Your task to perform on an android device: Toggle the flashlight Image 0: 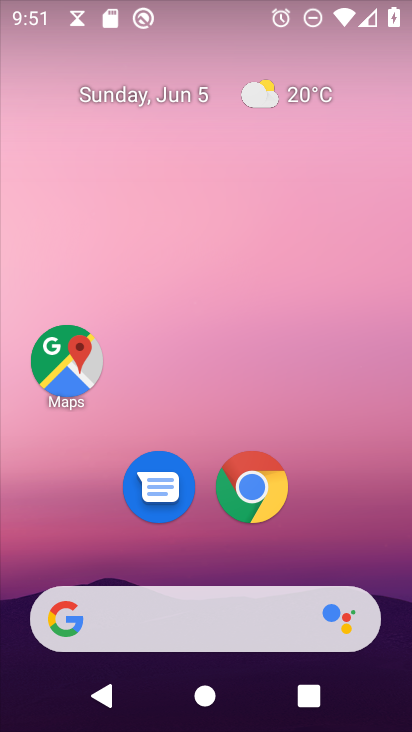
Step 0: drag from (343, 548) to (298, 172)
Your task to perform on an android device: Toggle the flashlight Image 1: 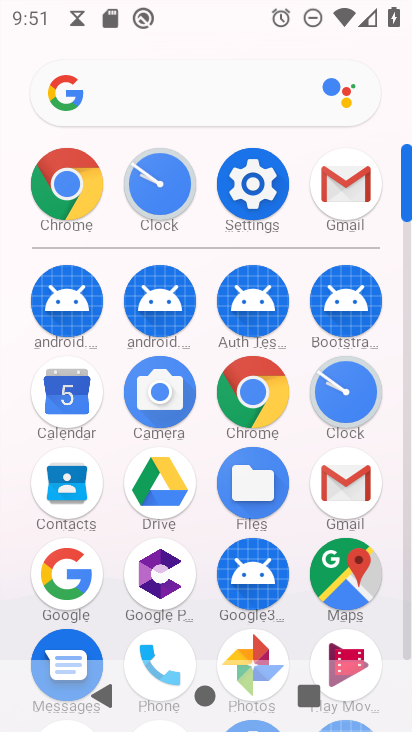
Step 1: click (227, 157)
Your task to perform on an android device: Toggle the flashlight Image 2: 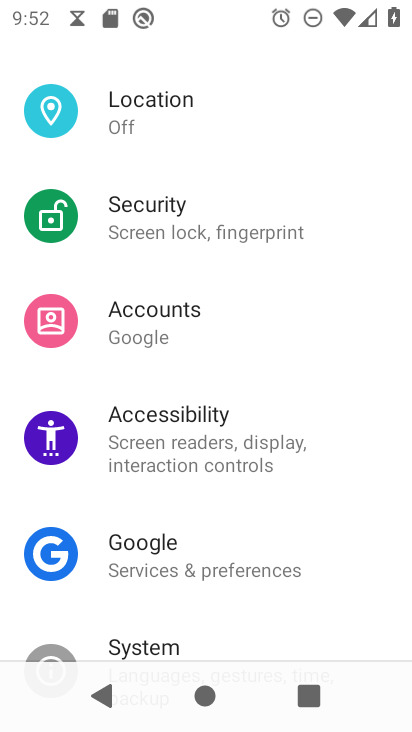
Step 2: task complete